Your task to perform on an android device: open a new tab in the chrome app Image 0: 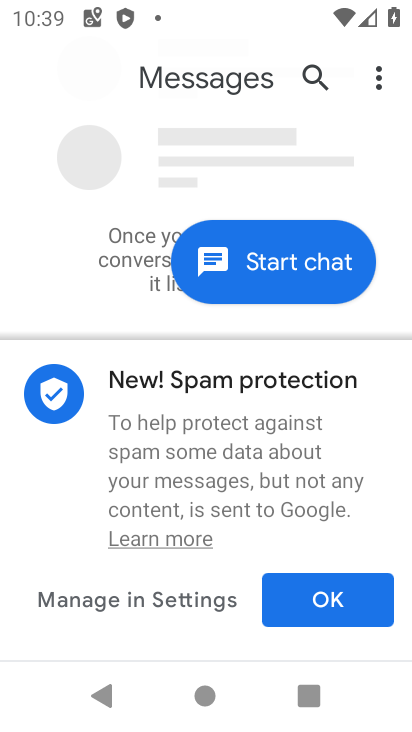
Step 0: press back button
Your task to perform on an android device: open a new tab in the chrome app Image 1: 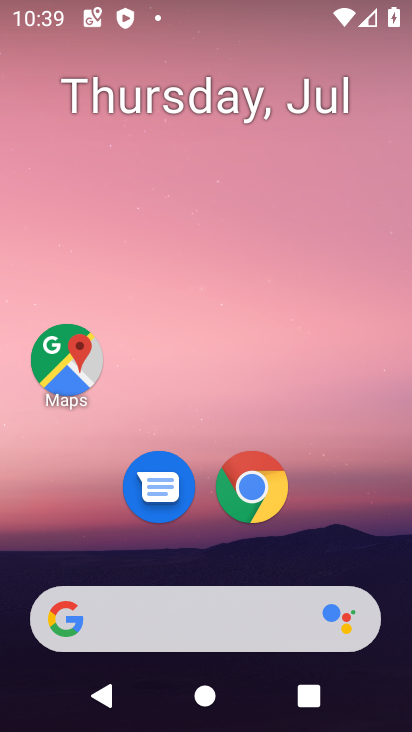
Step 1: click (247, 480)
Your task to perform on an android device: open a new tab in the chrome app Image 2: 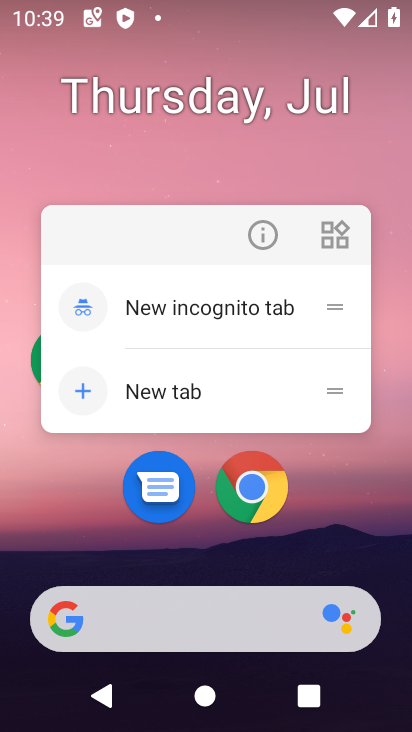
Step 2: click (258, 484)
Your task to perform on an android device: open a new tab in the chrome app Image 3: 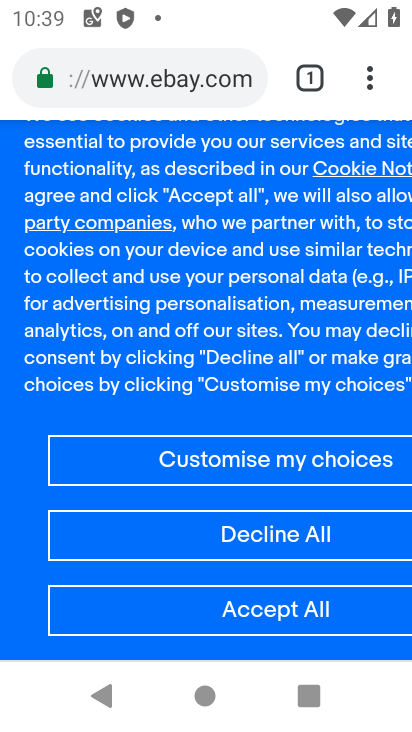
Step 3: click (303, 66)
Your task to perform on an android device: open a new tab in the chrome app Image 4: 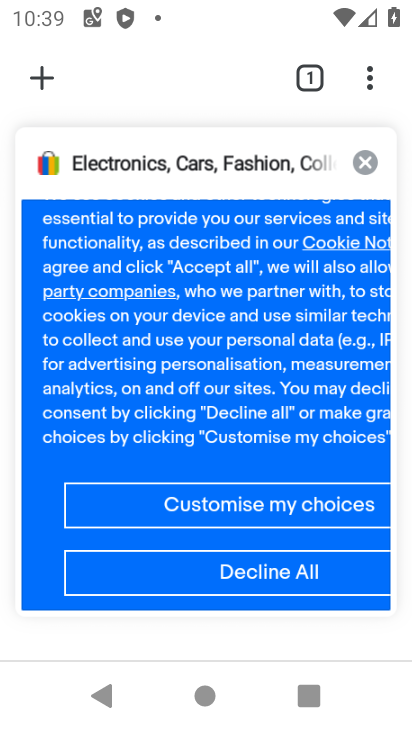
Step 4: click (45, 75)
Your task to perform on an android device: open a new tab in the chrome app Image 5: 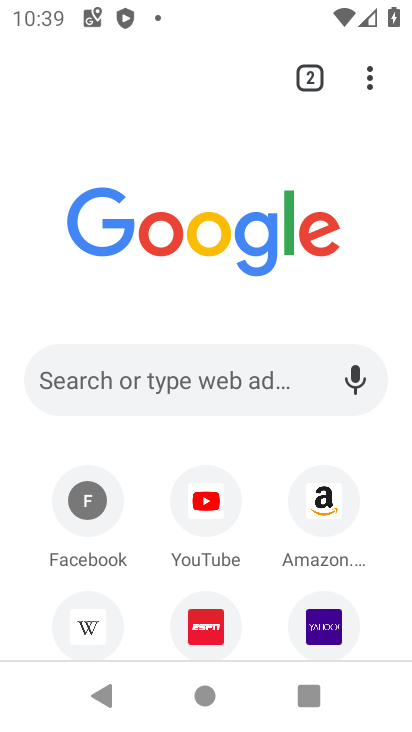
Step 5: task complete